Your task to perform on an android device: Is it going to rain tomorrow? Image 0: 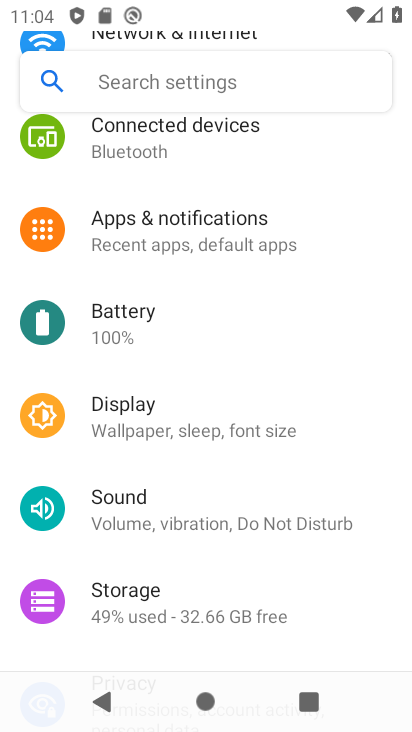
Step 0: press home button
Your task to perform on an android device: Is it going to rain tomorrow? Image 1: 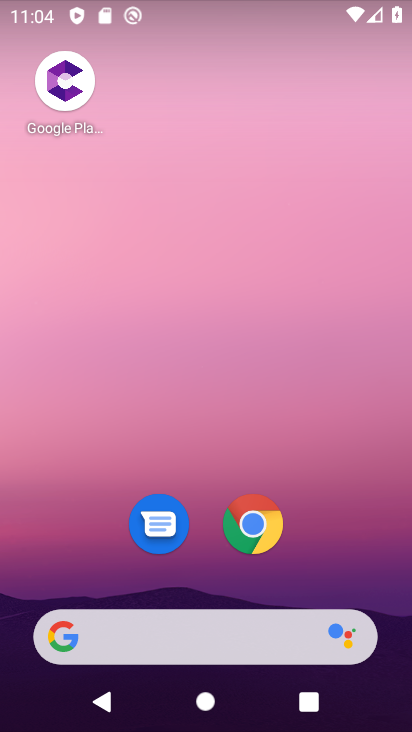
Step 1: click (231, 649)
Your task to perform on an android device: Is it going to rain tomorrow? Image 2: 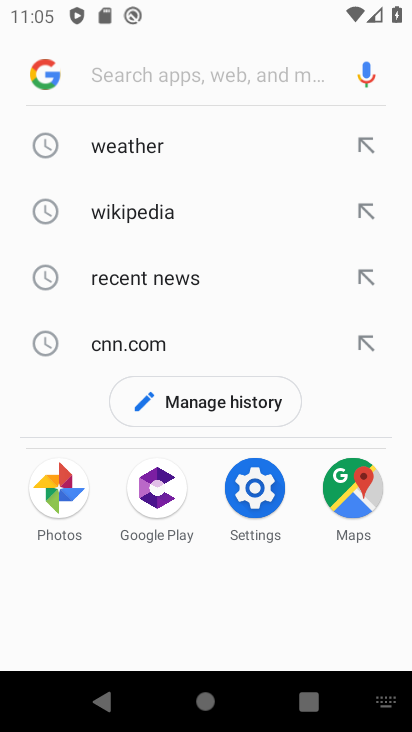
Step 2: click (108, 147)
Your task to perform on an android device: Is it going to rain tomorrow? Image 3: 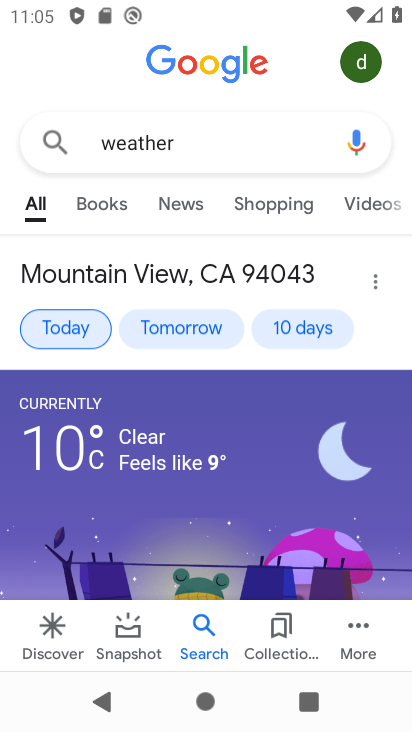
Step 3: click (86, 326)
Your task to perform on an android device: Is it going to rain tomorrow? Image 4: 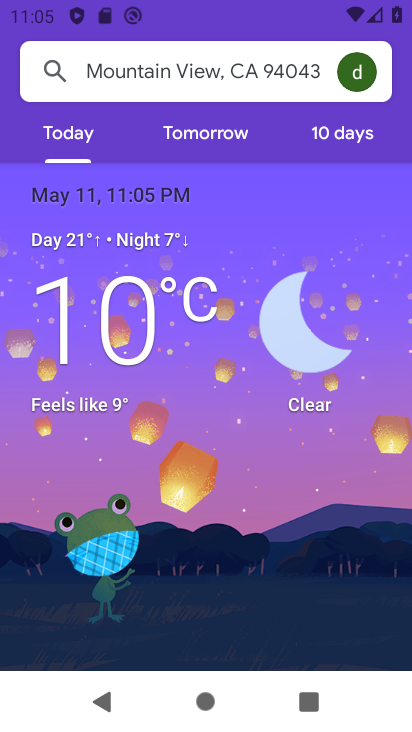
Step 4: click (192, 130)
Your task to perform on an android device: Is it going to rain tomorrow? Image 5: 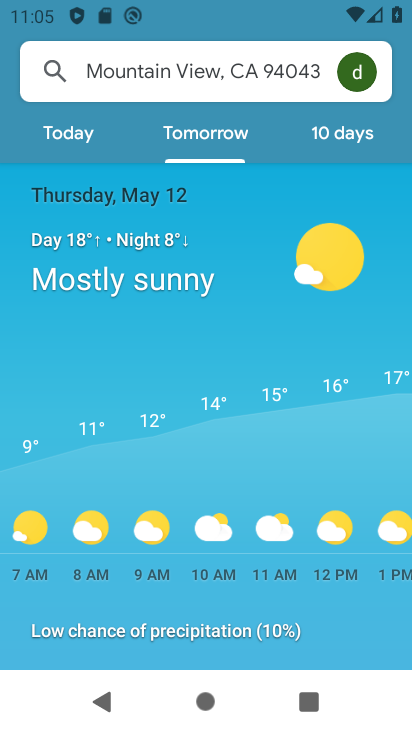
Step 5: task complete